Your task to perform on an android device: Open my contact list Image 0: 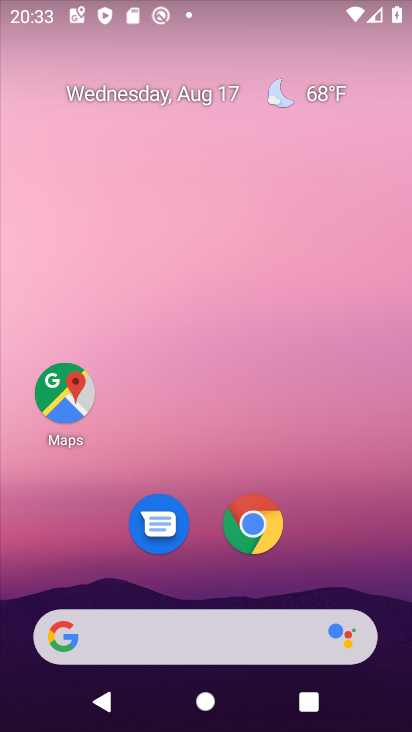
Step 0: drag from (325, 537) to (297, 53)
Your task to perform on an android device: Open my contact list Image 1: 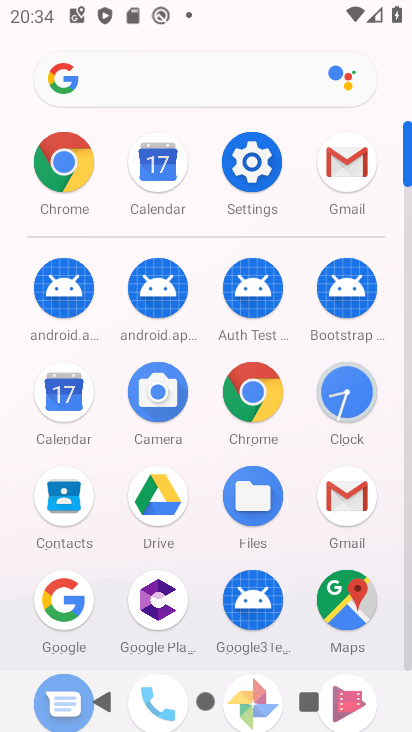
Step 1: click (68, 492)
Your task to perform on an android device: Open my contact list Image 2: 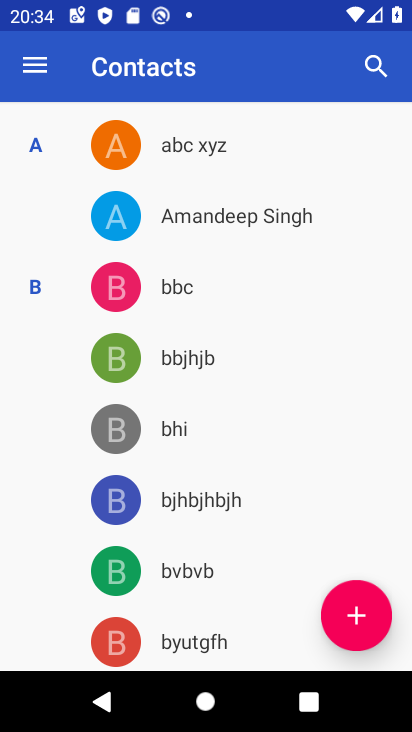
Step 2: task complete